Your task to perform on an android device: Show me popular games on the Play Store Image 0: 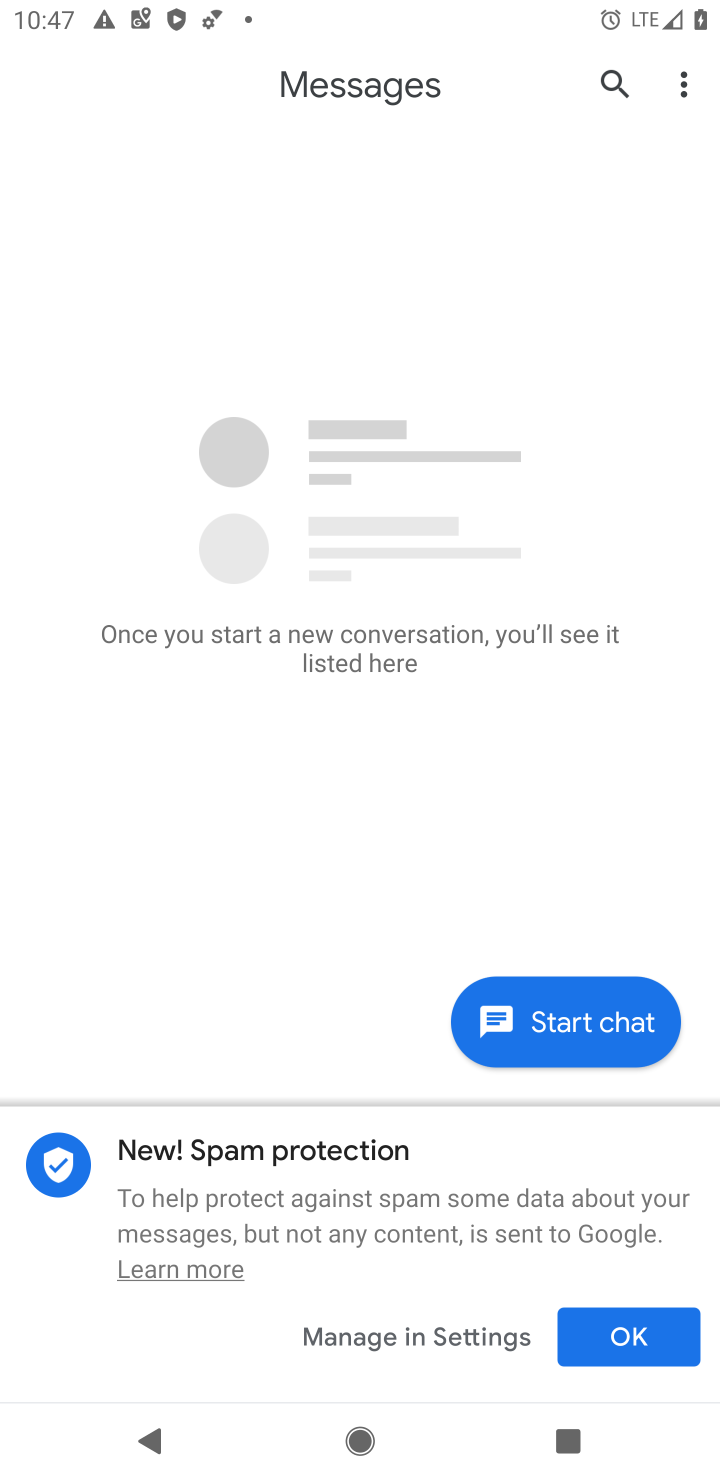
Step 0: press home button
Your task to perform on an android device: Show me popular games on the Play Store Image 1: 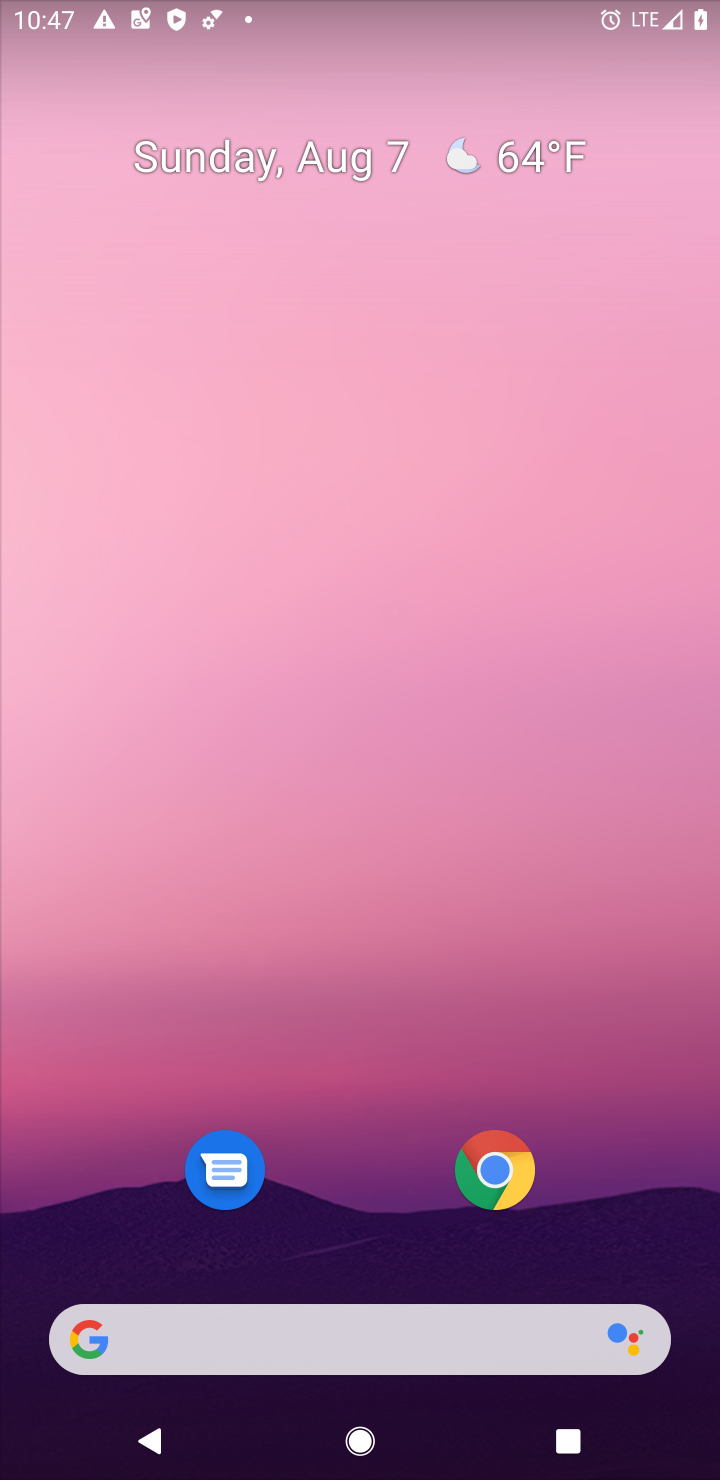
Step 1: drag from (496, 1325) to (600, 485)
Your task to perform on an android device: Show me popular games on the Play Store Image 2: 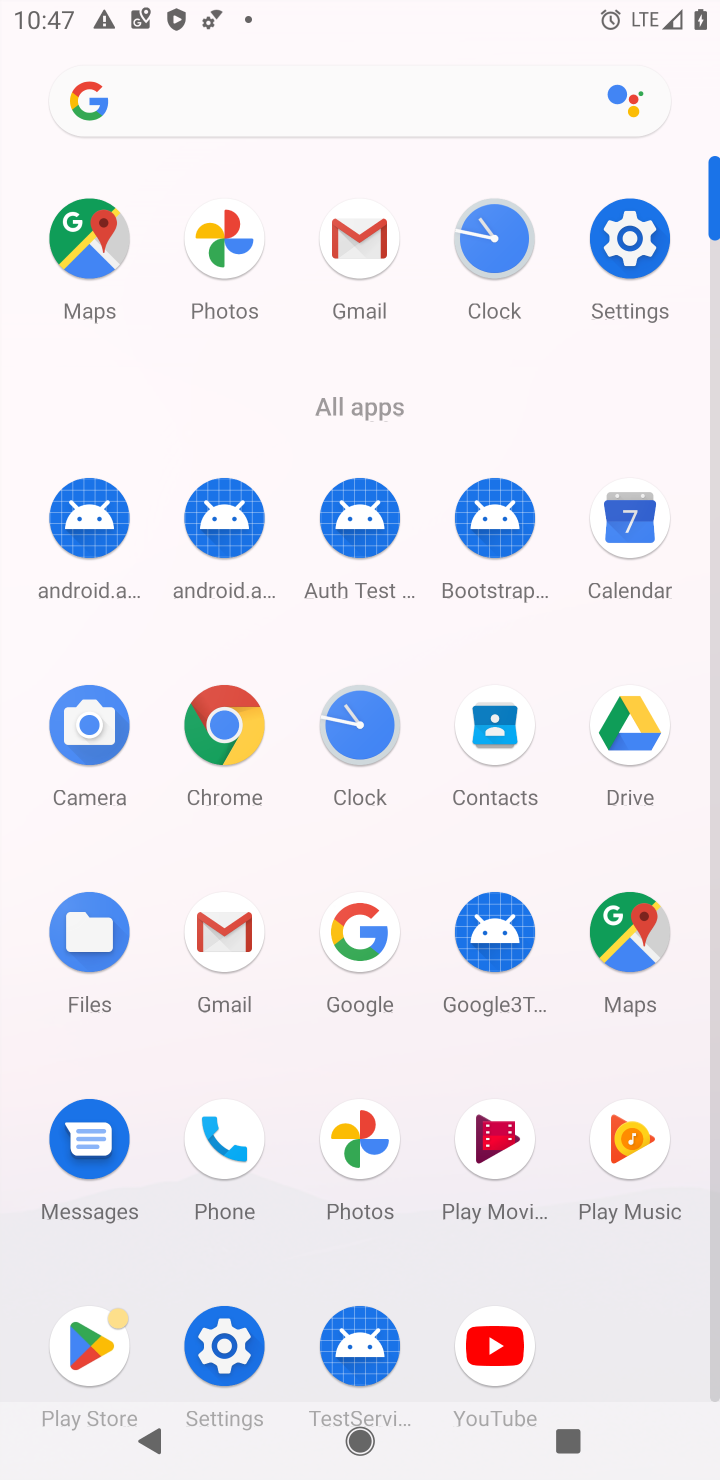
Step 2: click (92, 1347)
Your task to perform on an android device: Show me popular games on the Play Store Image 3: 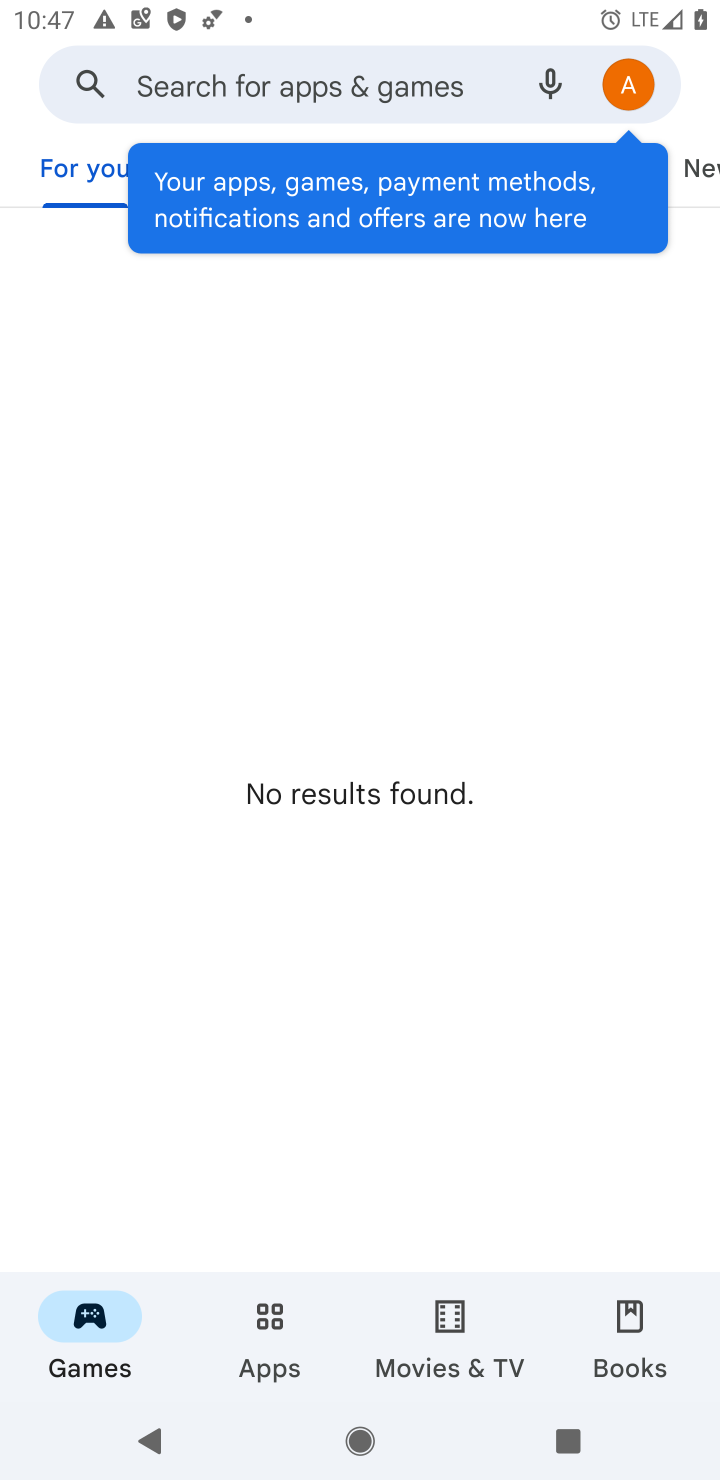
Step 3: click (604, 62)
Your task to perform on an android device: Show me popular games on the Play Store Image 4: 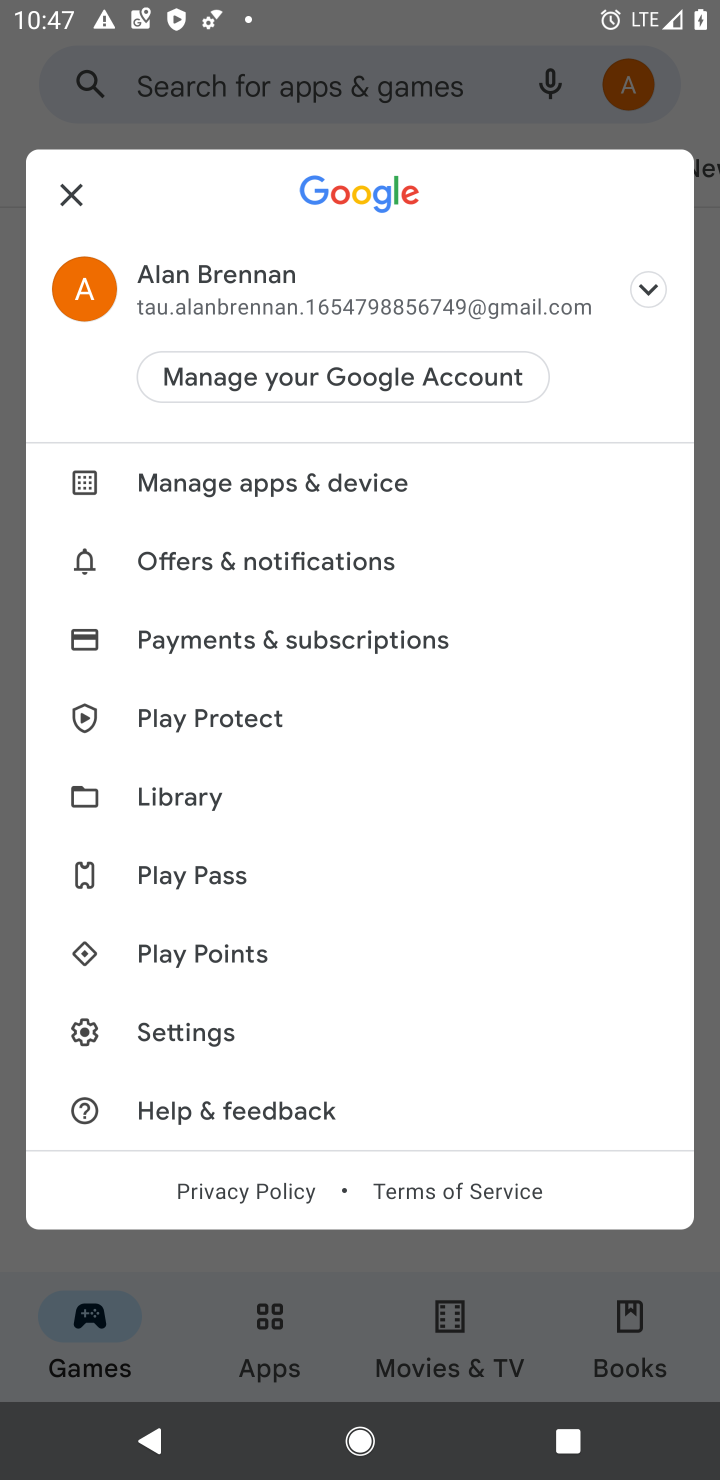
Step 4: click (260, 1269)
Your task to perform on an android device: Show me popular games on the Play Store Image 5: 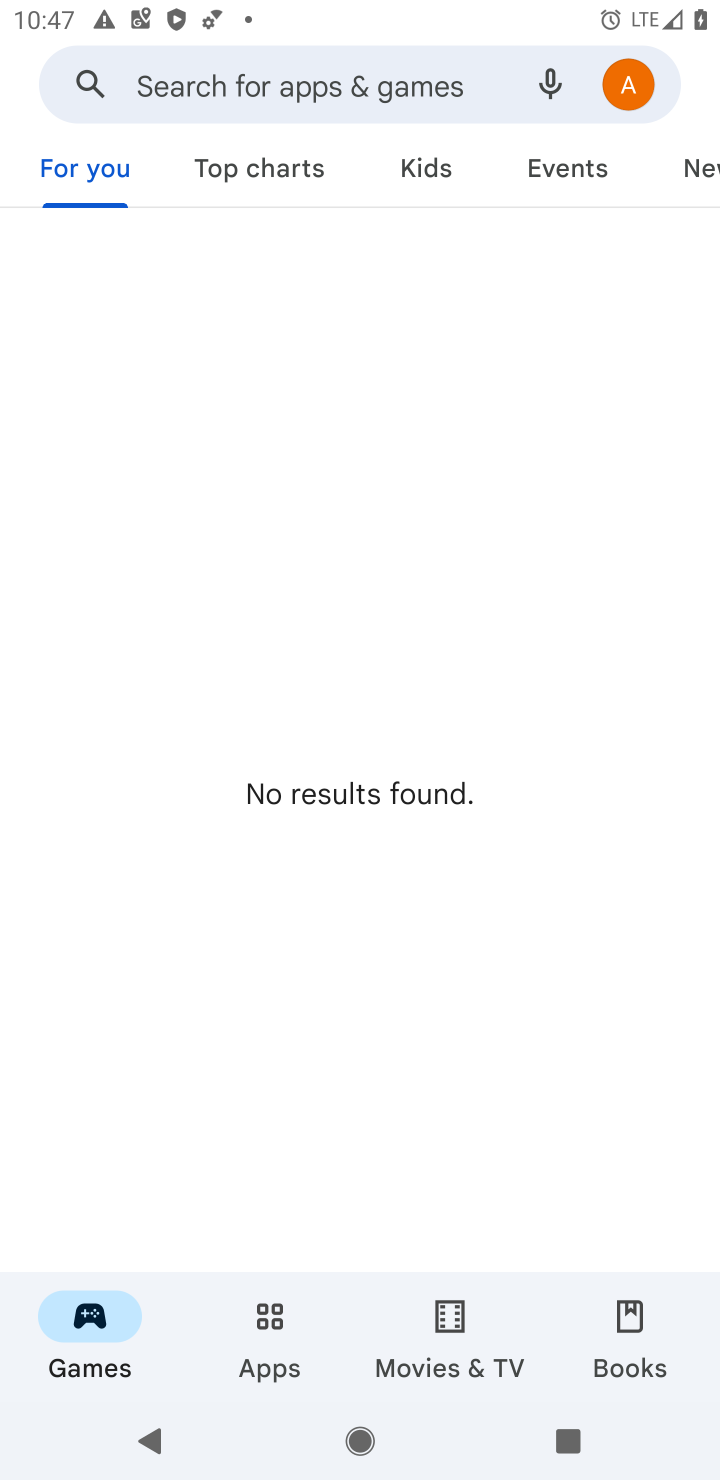
Step 5: task complete